Your task to perform on an android device: Open Google Chrome and click the shortcut for Amazon.com Image 0: 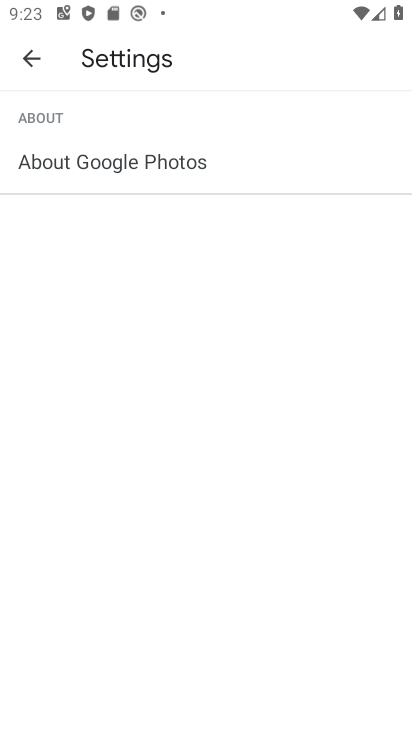
Step 0: press home button
Your task to perform on an android device: Open Google Chrome and click the shortcut for Amazon.com Image 1: 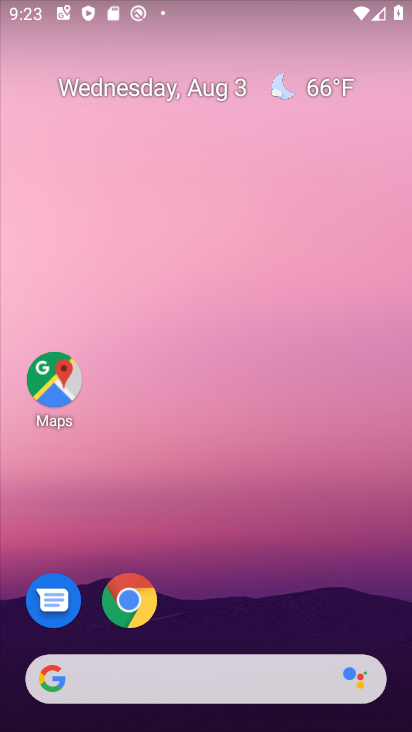
Step 1: click (140, 616)
Your task to perform on an android device: Open Google Chrome and click the shortcut for Amazon.com Image 2: 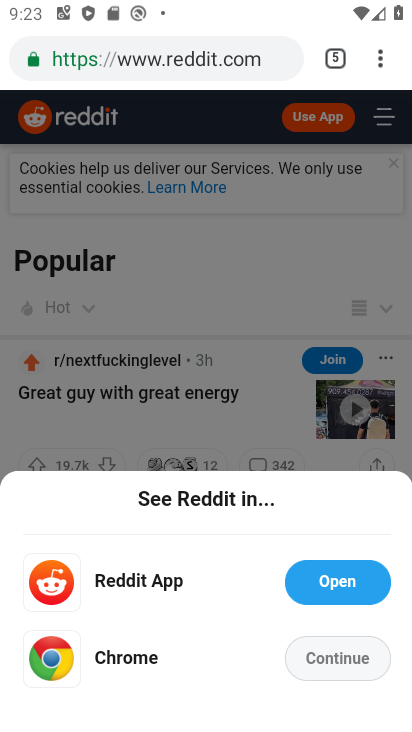
Step 2: click (366, 61)
Your task to perform on an android device: Open Google Chrome and click the shortcut for Amazon.com Image 3: 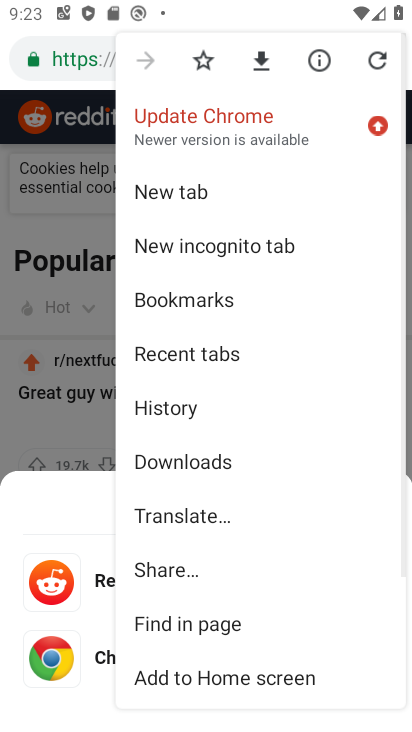
Step 3: click (201, 189)
Your task to perform on an android device: Open Google Chrome and click the shortcut for Amazon.com Image 4: 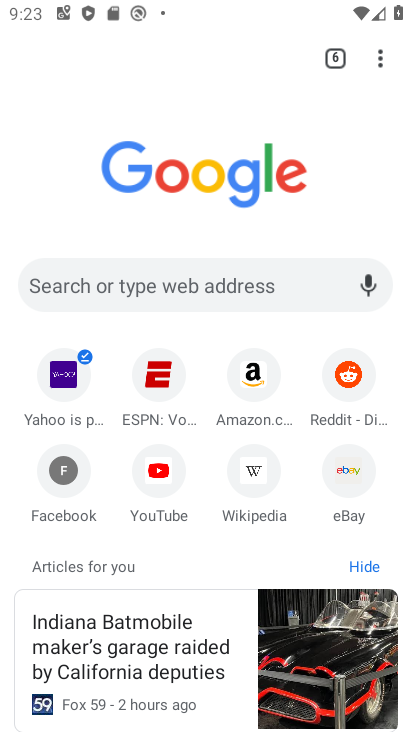
Step 4: click (255, 383)
Your task to perform on an android device: Open Google Chrome and click the shortcut for Amazon.com Image 5: 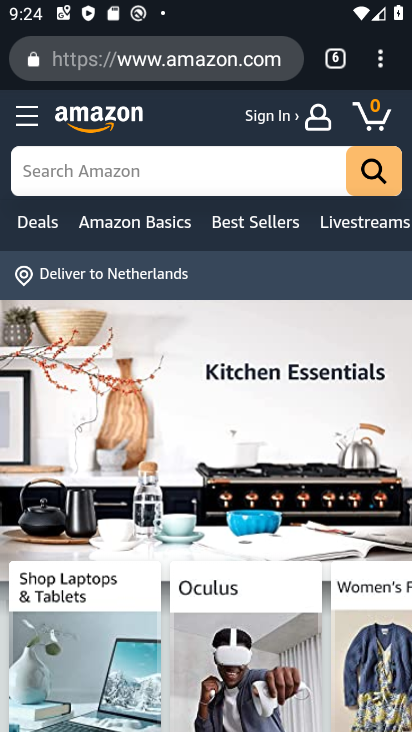
Step 5: task complete